Your task to perform on an android device: toggle sleep mode Image 0: 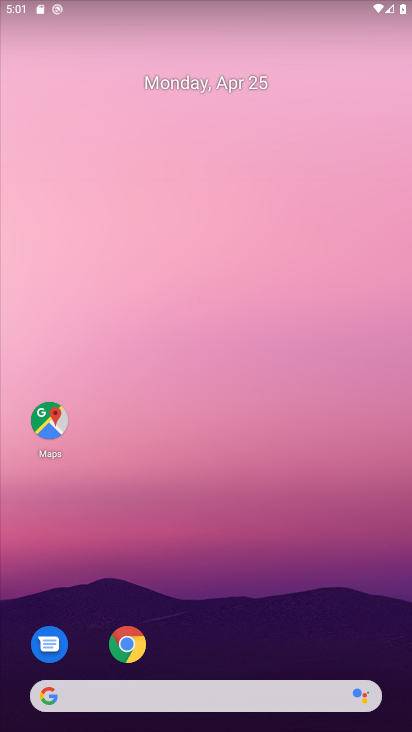
Step 0: drag from (242, 586) to (227, 108)
Your task to perform on an android device: toggle sleep mode Image 1: 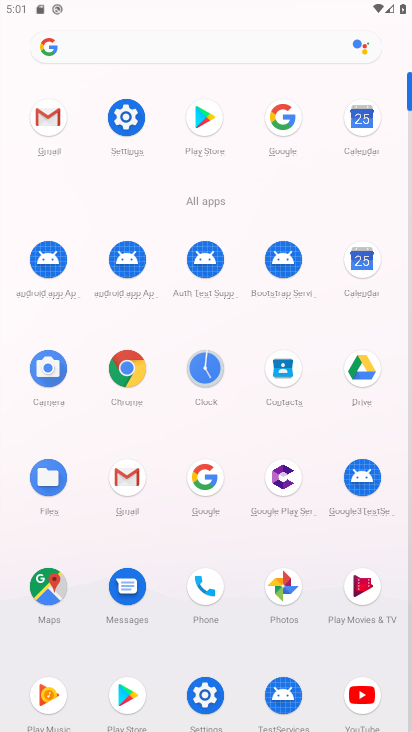
Step 1: click (205, 691)
Your task to perform on an android device: toggle sleep mode Image 2: 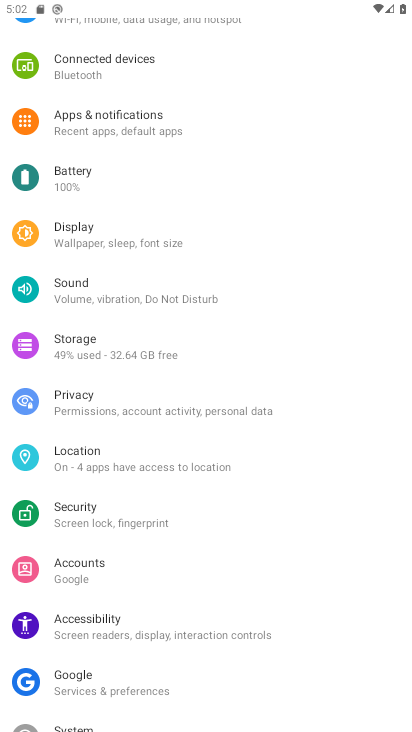
Step 2: click (109, 225)
Your task to perform on an android device: toggle sleep mode Image 3: 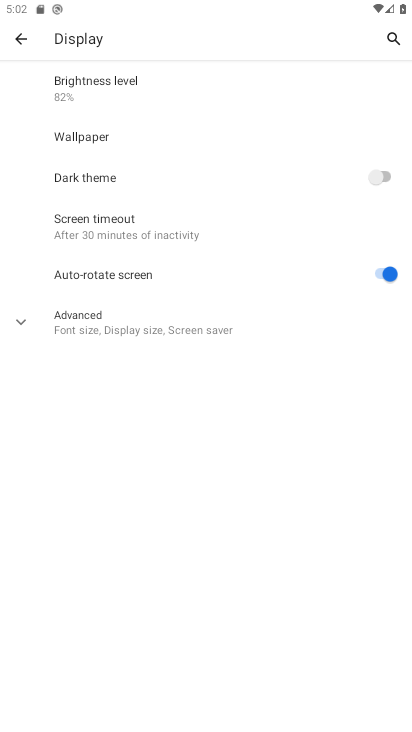
Step 3: click (244, 355)
Your task to perform on an android device: toggle sleep mode Image 4: 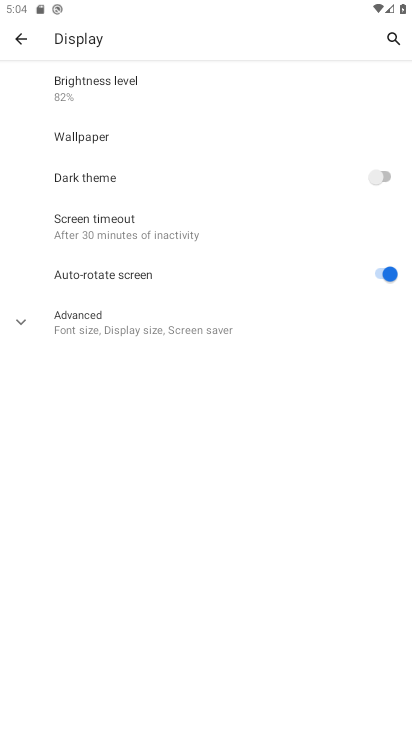
Step 4: task complete